Your task to perform on an android device: Open Android settings Image 0: 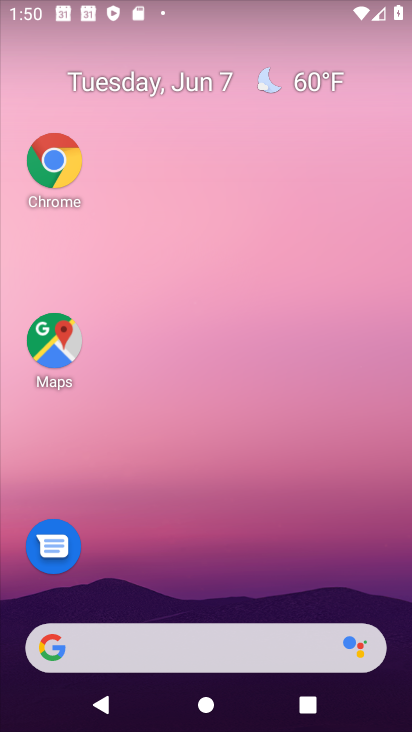
Step 0: drag from (215, 602) to (269, 47)
Your task to perform on an android device: Open Android settings Image 1: 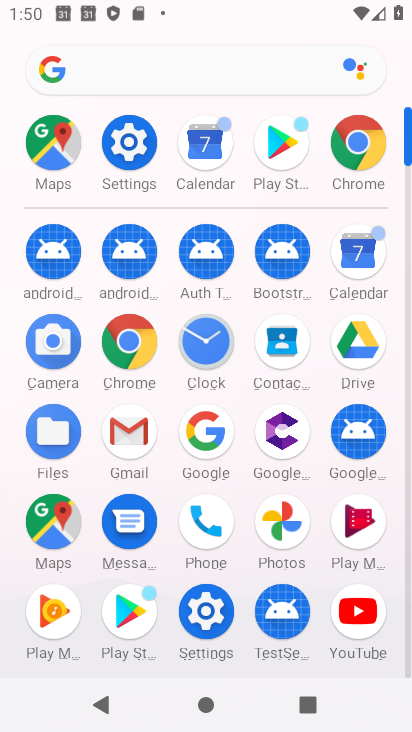
Step 1: click (198, 603)
Your task to perform on an android device: Open Android settings Image 2: 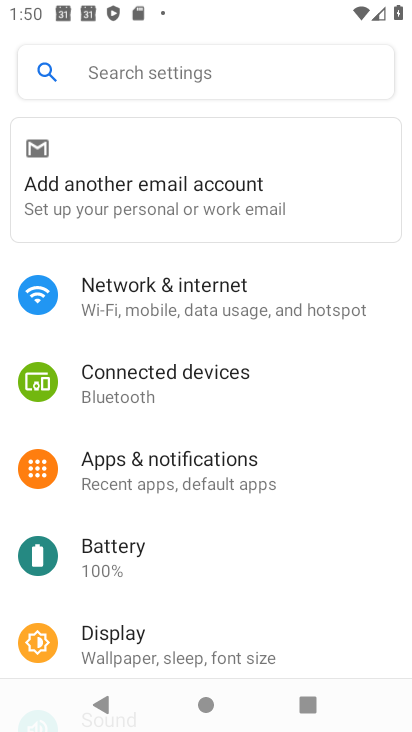
Step 2: drag from (210, 578) to (309, 38)
Your task to perform on an android device: Open Android settings Image 3: 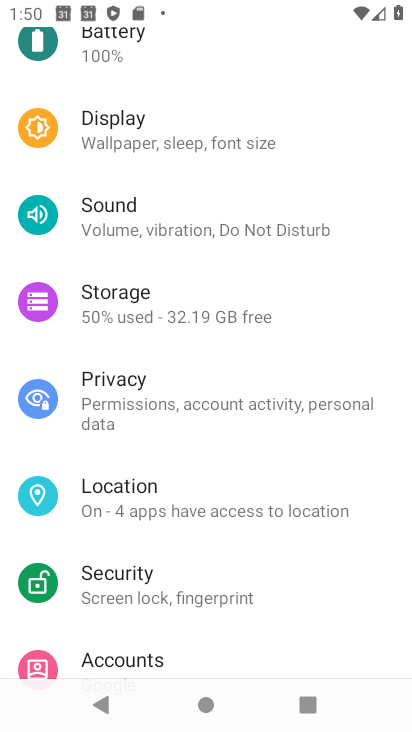
Step 3: drag from (231, 536) to (291, 179)
Your task to perform on an android device: Open Android settings Image 4: 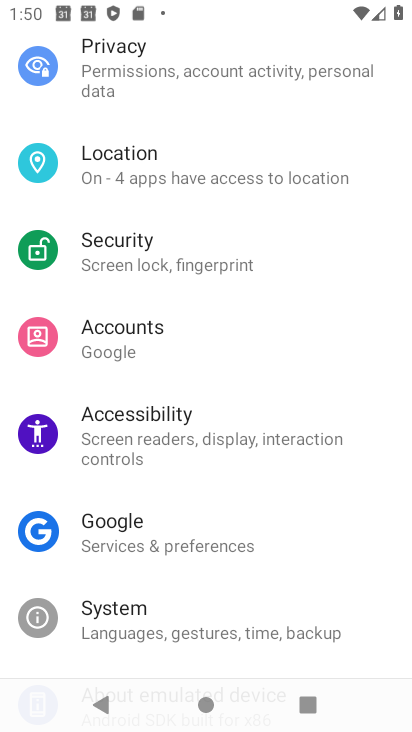
Step 4: drag from (209, 578) to (283, 148)
Your task to perform on an android device: Open Android settings Image 5: 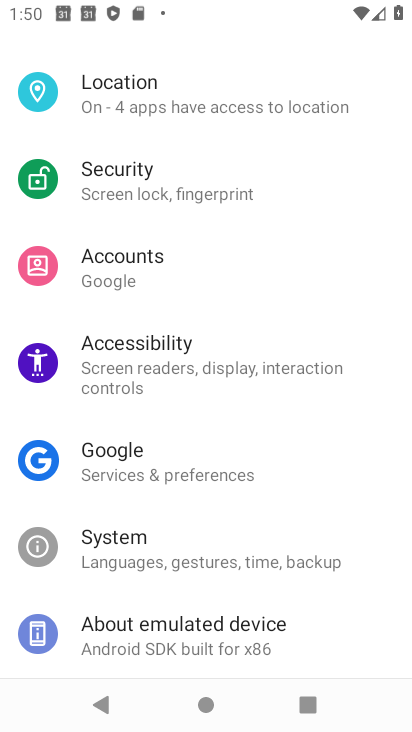
Step 5: click (187, 644)
Your task to perform on an android device: Open Android settings Image 6: 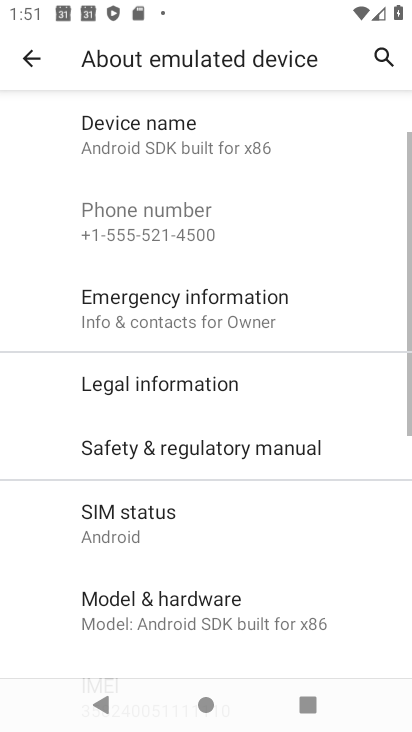
Step 6: drag from (234, 554) to (338, 93)
Your task to perform on an android device: Open Android settings Image 7: 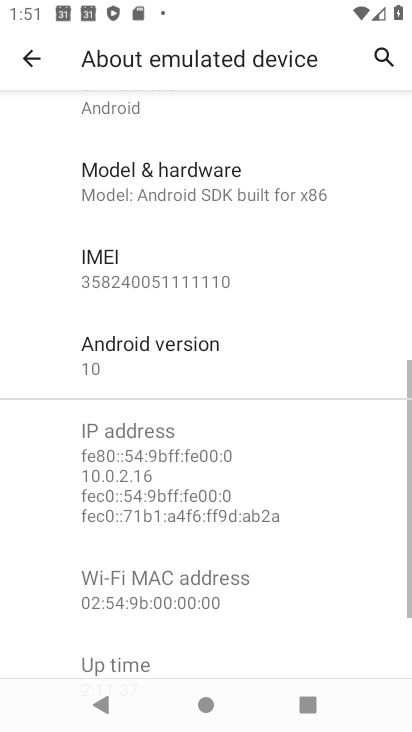
Step 7: click (166, 359)
Your task to perform on an android device: Open Android settings Image 8: 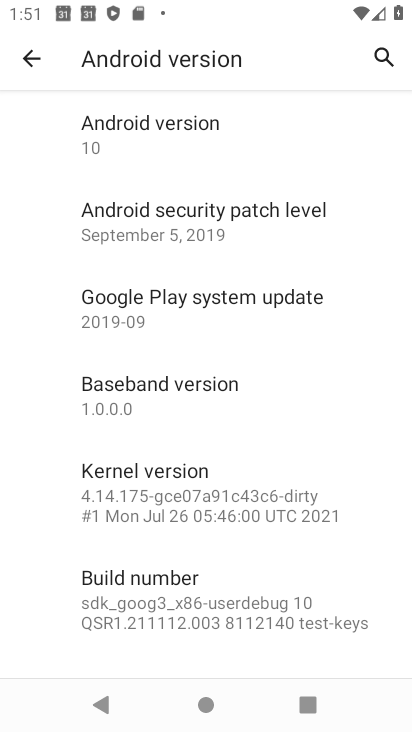
Step 8: click (190, 138)
Your task to perform on an android device: Open Android settings Image 9: 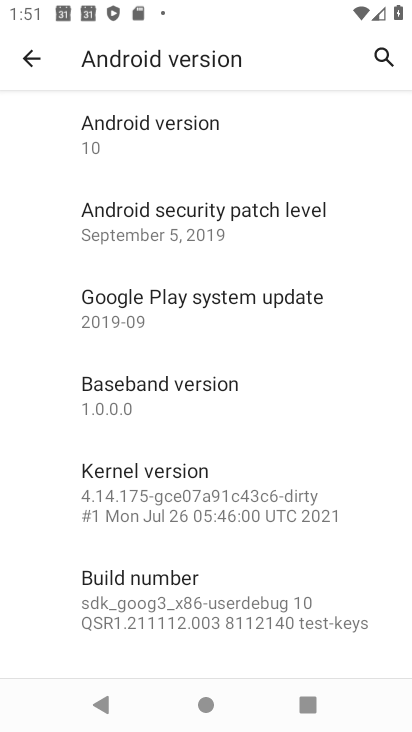
Step 9: task complete